Your task to perform on an android device: toggle wifi Image 0: 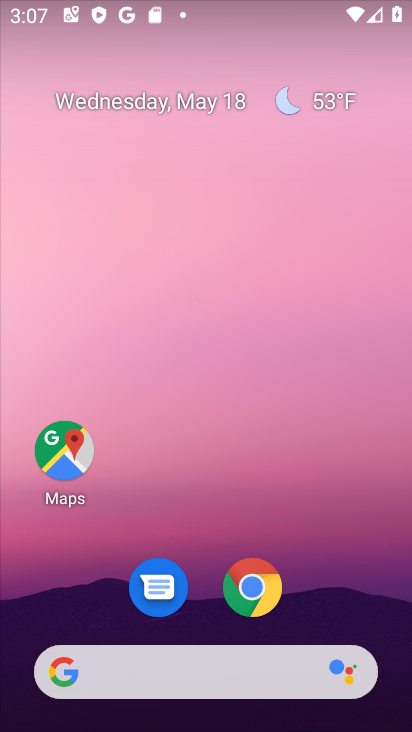
Step 0: drag from (231, 621) to (295, 192)
Your task to perform on an android device: toggle wifi Image 1: 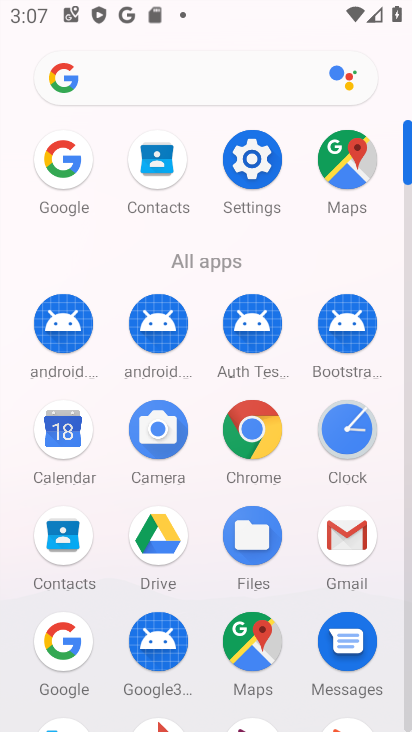
Step 1: click (259, 168)
Your task to perform on an android device: toggle wifi Image 2: 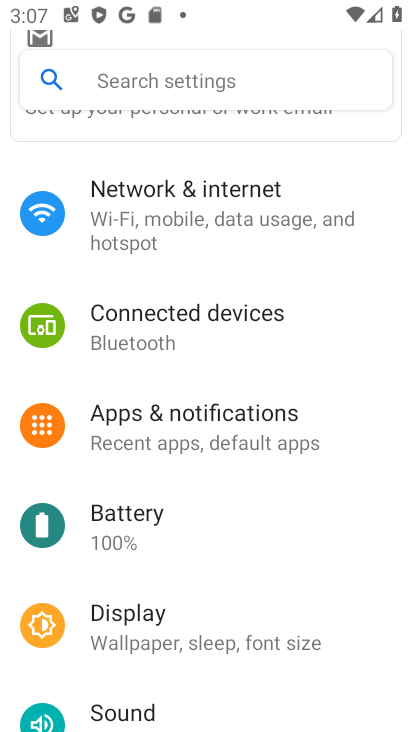
Step 2: drag from (264, 207) to (222, 684)
Your task to perform on an android device: toggle wifi Image 3: 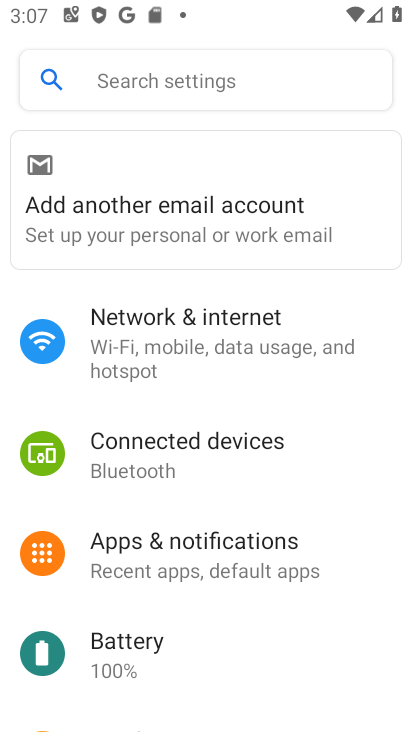
Step 3: click (230, 340)
Your task to perform on an android device: toggle wifi Image 4: 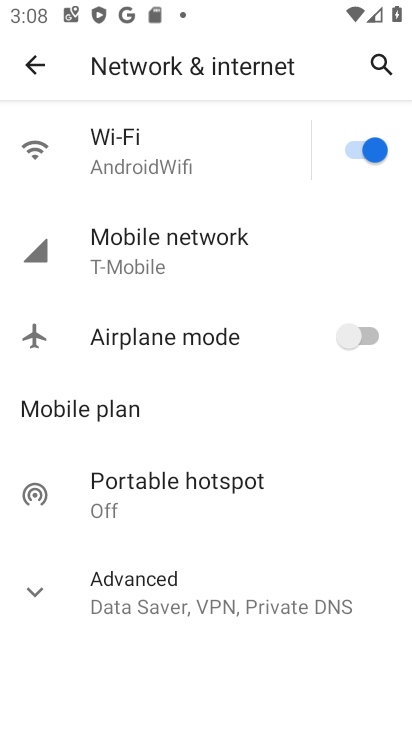
Step 4: click (351, 146)
Your task to perform on an android device: toggle wifi Image 5: 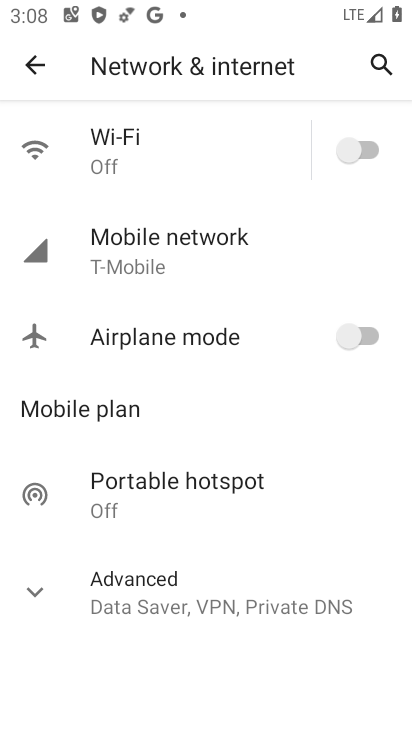
Step 5: task complete